Your task to perform on an android device: Check the news Image 0: 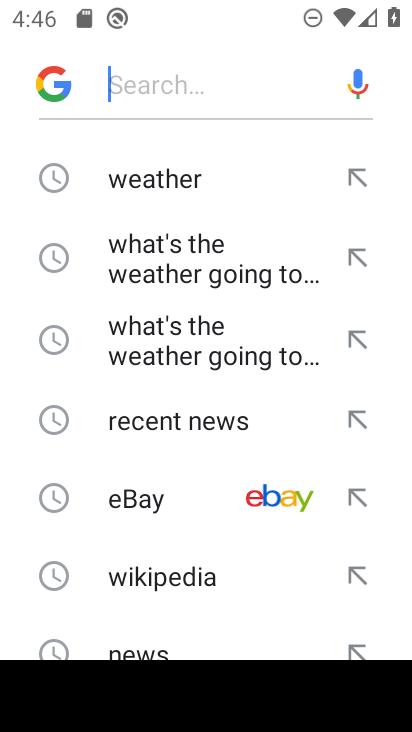
Step 0: click (151, 649)
Your task to perform on an android device: Check the news Image 1: 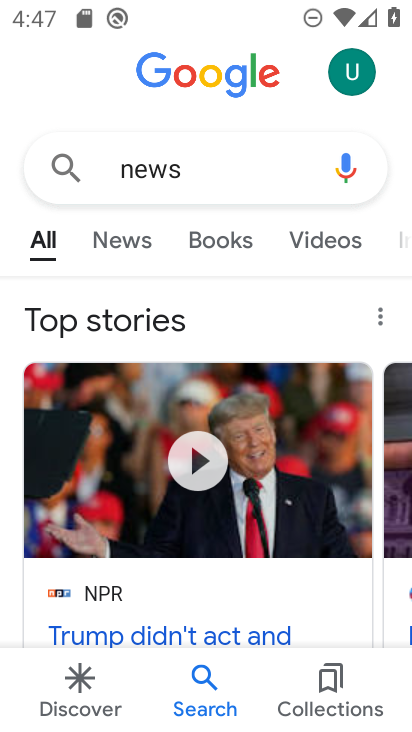
Step 1: task complete